Your task to perform on an android device: turn on the 24-hour format for clock Image 0: 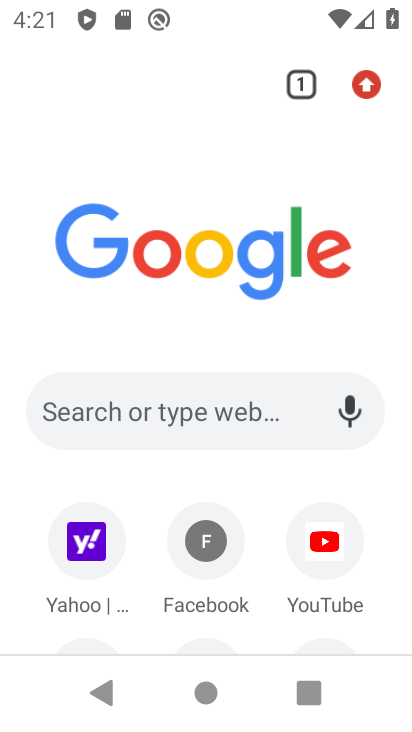
Step 0: press home button
Your task to perform on an android device: turn on the 24-hour format for clock Image 1: 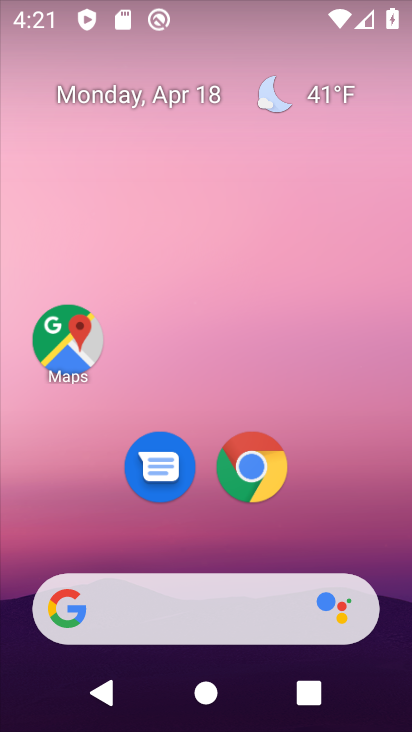
Step 1: drag from (203, 546) to (211, 188)
Your task to perform on an android device: turn on the 24-hour format for clock Image 2: 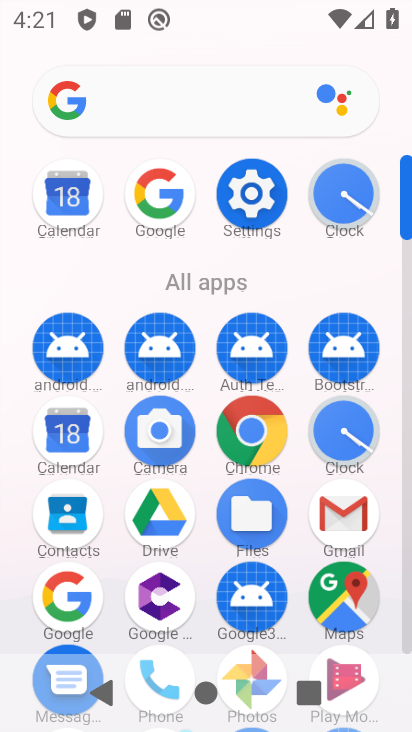
Step 2: click (351, 180)
Your task to perform on an android device: turn on the 24-hour format for clock Image 3: 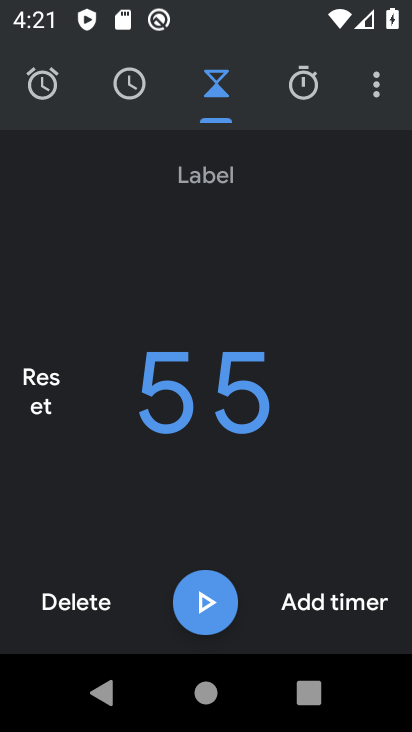
Step 3: click (373, 91)
Your task to perform on an android device: turn on the 24-hour format for clock Image 4: 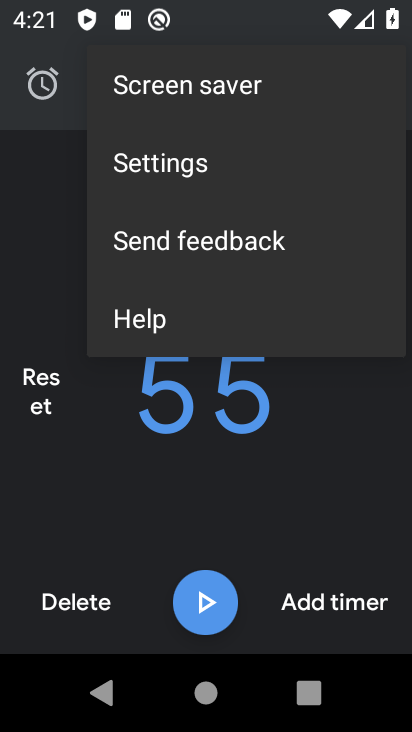
Step 4: click (177, 170)
Your task to perform on an android device: turn on the 24-hour format for clock Image 5: 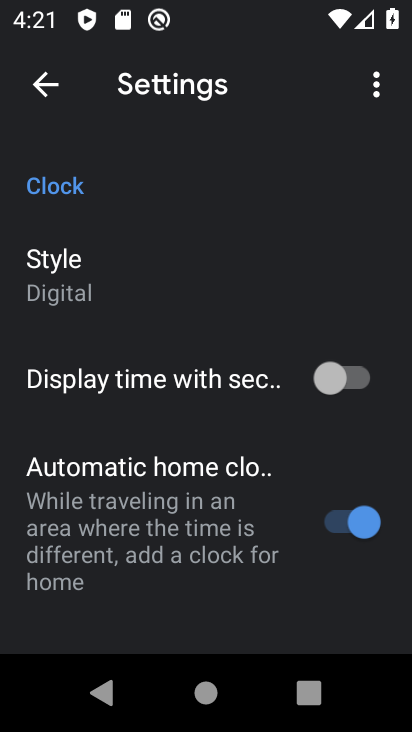
Step 5: drag from (186, 551) to (210, 182)
Your task to perform on an android device: turn on the 24-hour format for clock Image 6: 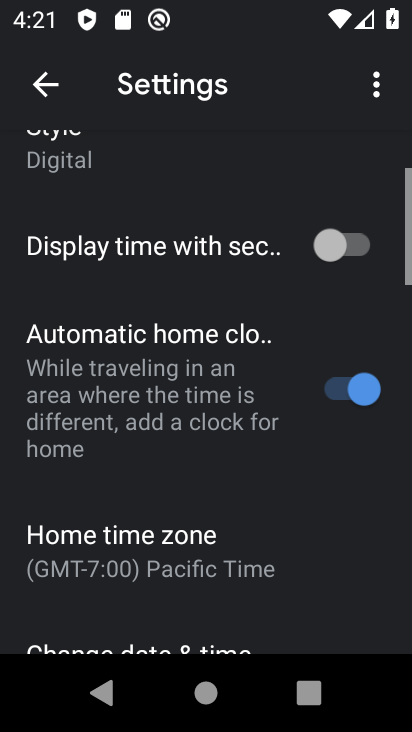
Step 6: drag from (220, 473) to (246, 184)
Your task to perform on an android device: turn on the 24-hour format for clock Image 7: 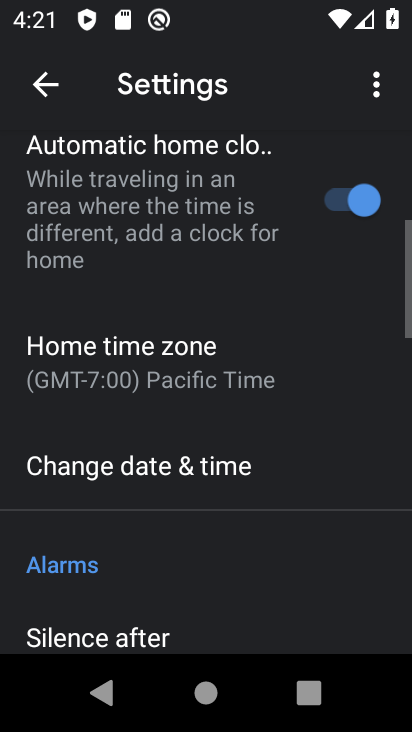
Step 7: click (233, 476)
Your task to perform on an android device: turn on the 24-hour format for clock Image 8: 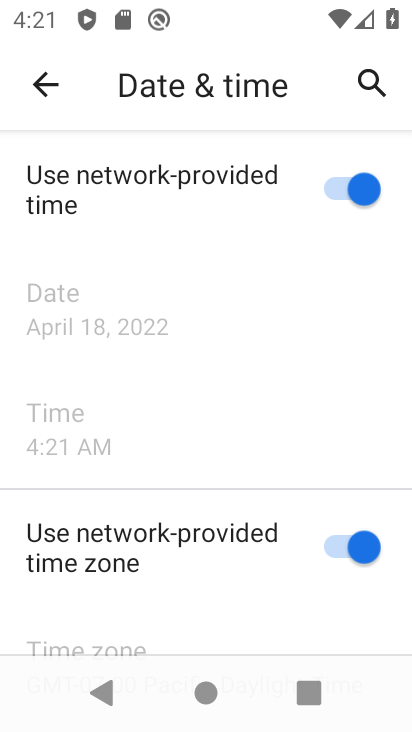
Step 8: drag from (234, 471) to (275, 238)
Your task to perform on an android device: turn on the 24-hour format for clock Image 9: 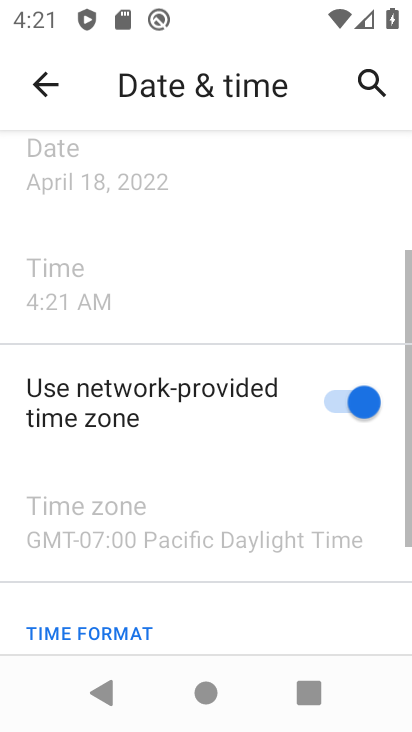
Step 9: drag from (250, 514) to (295, 208)
Your task to perform on an android device: turn on the 24-hour format for clock Image 10: 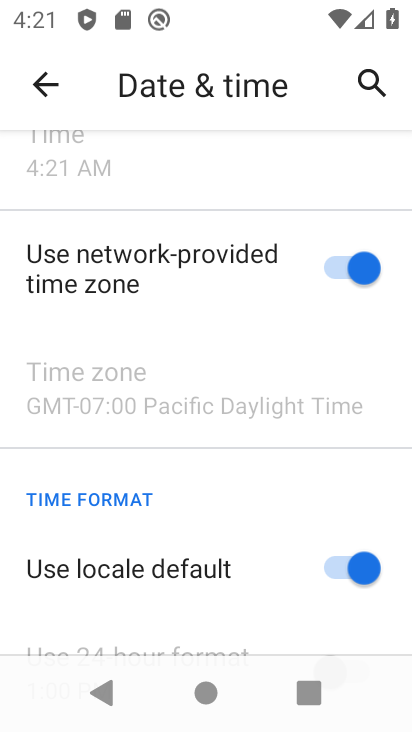
Step 10: drag from (297, 458) to (311, 241)
Your task to perform on an android device: turn on the 24-hour format for clock Image 11: 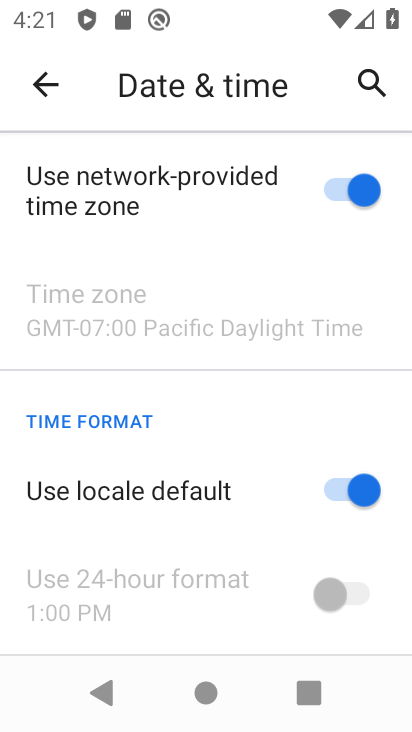
Step 11: drag from (267, 591) to (264, 340)
Your task to perform on an android device: turn on the 24-hour format for clock Image 12: 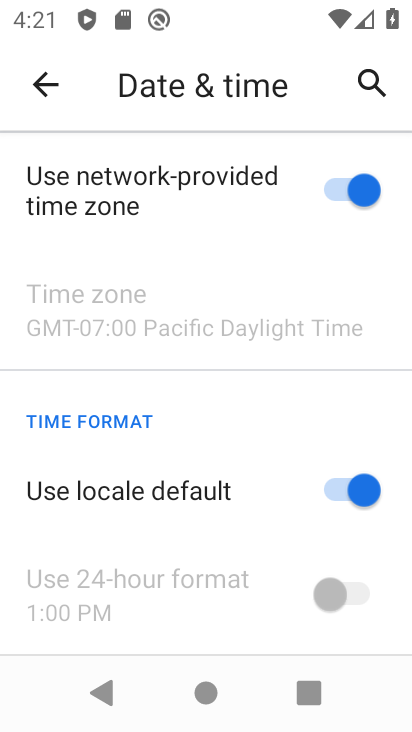
Step 12: click (327, 478)
Your task to perform on an android device: turn on the 24-hour format for clock Image 13: 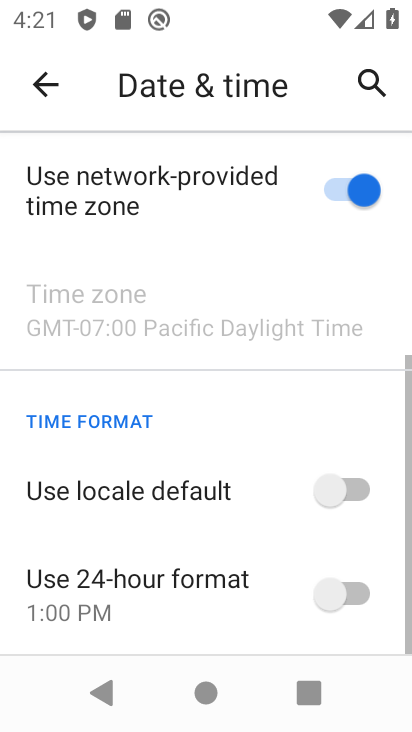
Step 13: click (352, 599)
Your task to perform on an android device: turn on the 24-hour format for clock Image 14: 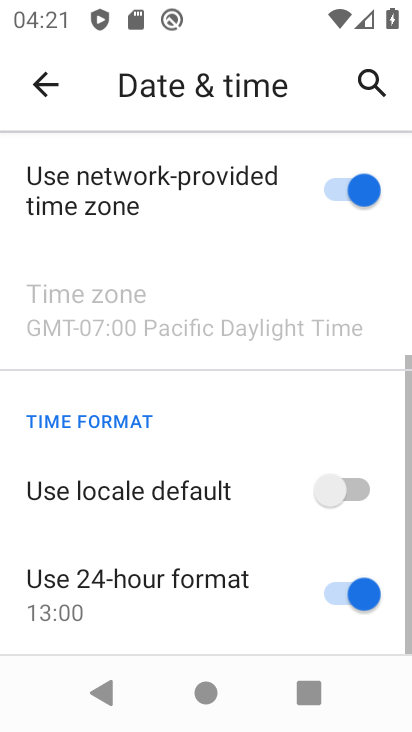
Step 14: task complete